Your task to perform on an android device: uninstall "Roku - Official Remote Control" Image 0: 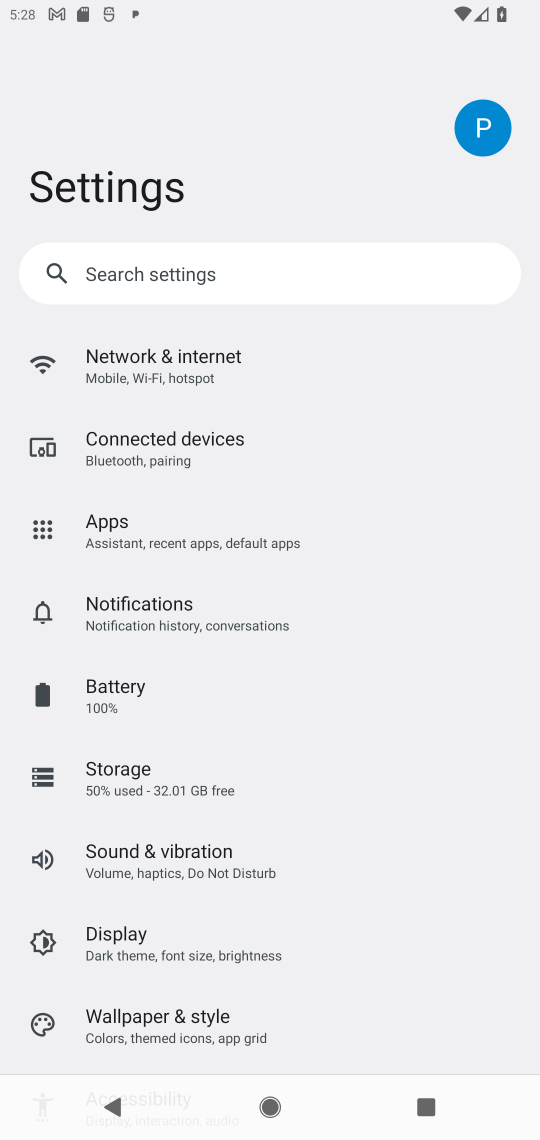
Step 0: press home button
Your task to perform on an android device: uninstall "Roku - Official Remote Control" Image 1: 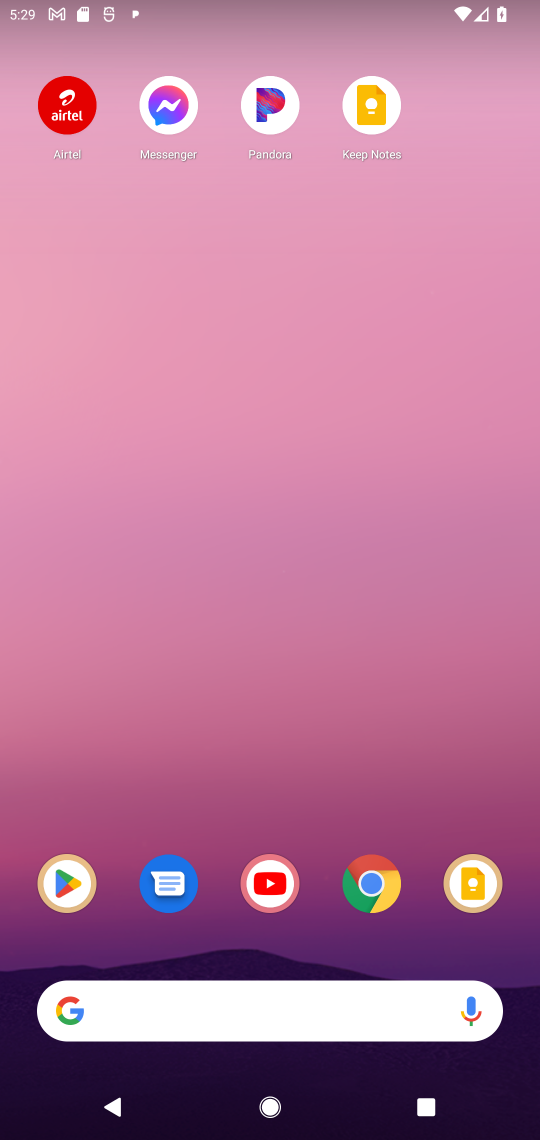
Step 1: click (60, 882)
Your task to perform on an android device: uninstall "Roku - Official Remote Control" Image 2: 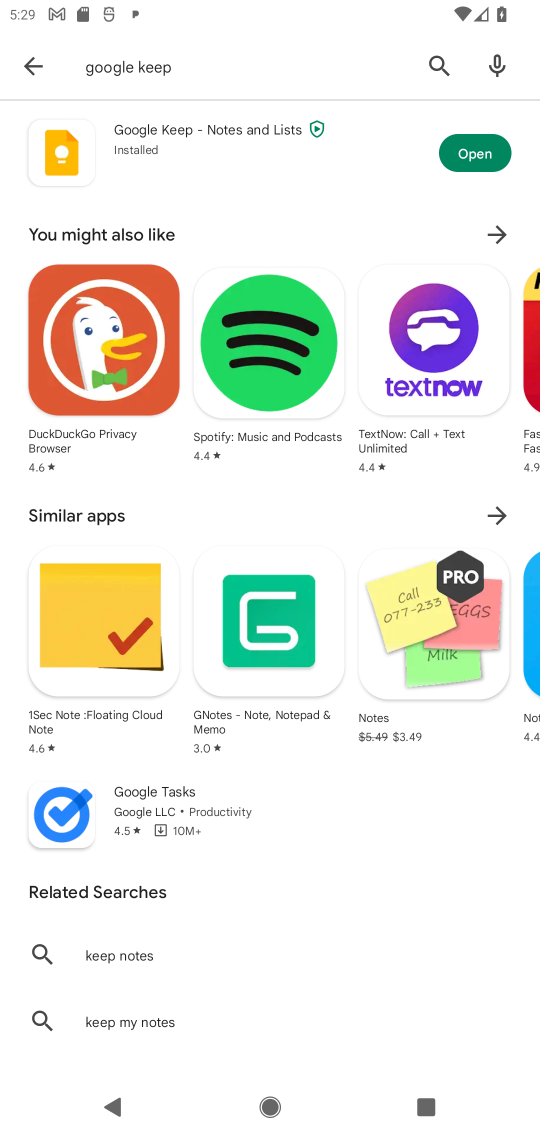
Step 2: click (20, 70)
Your task to perform on an android device: uninstall "Roku - Official Remote Control" Image 3: 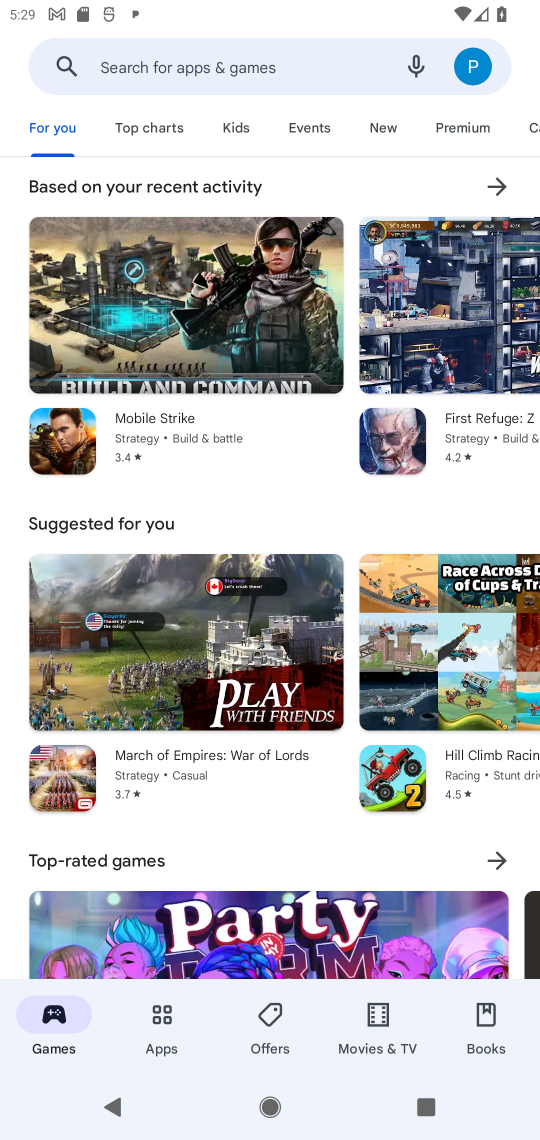
Step 3: click (195, 70)
Your task to perform on an android device: uninstall "Roku - Official Remote Control" Image 4: 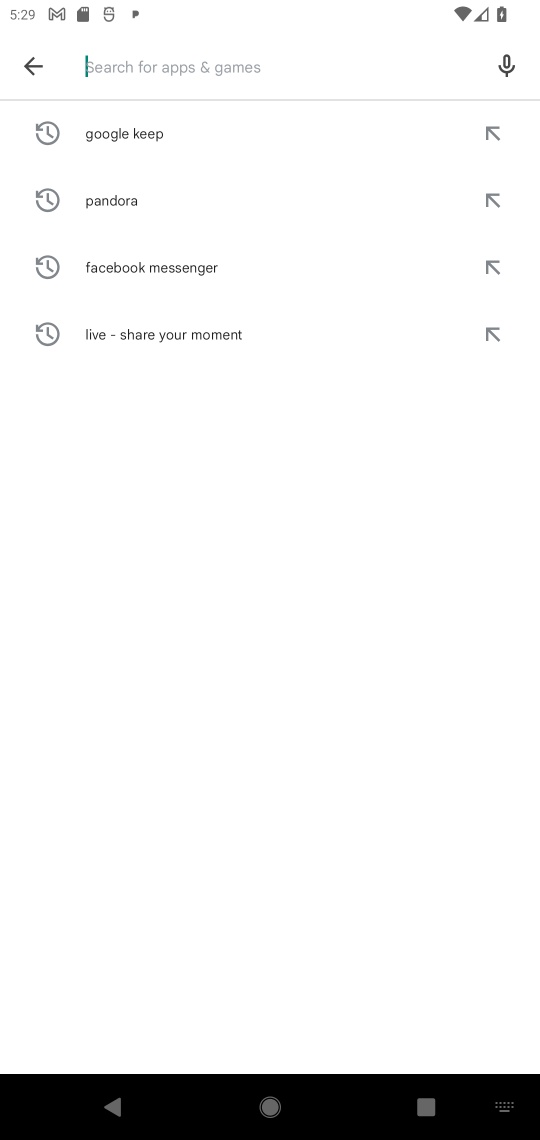
Step 4: type "Roku"
Your task to perform on an android device: uninstall "Roku - Official Remote Control" Image 5: 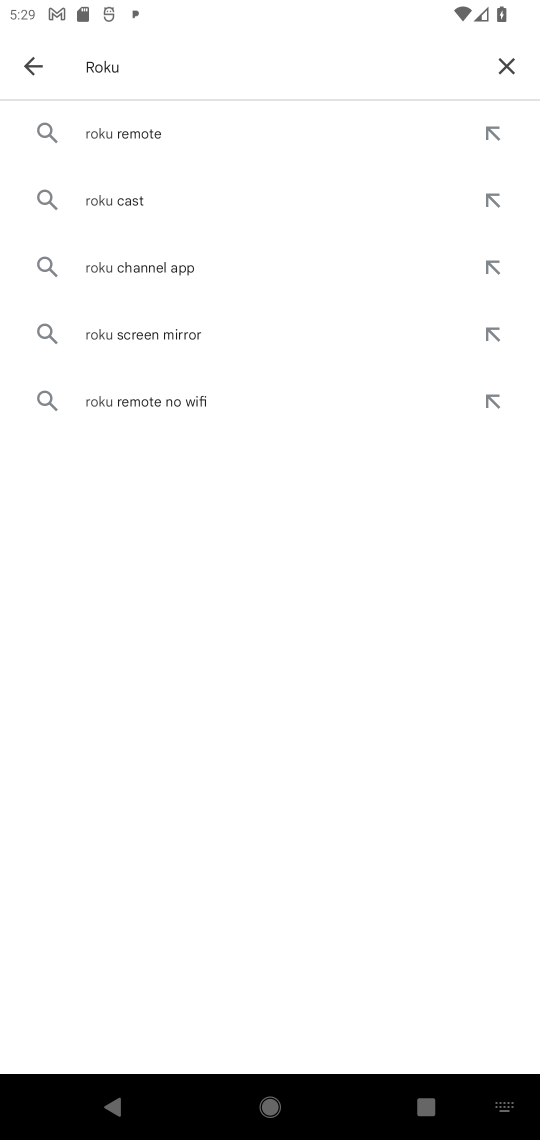
Step 5: click (140, 130)
Your task to perform on an android device: uninstall "Roku - Official Remote Control" Image 6: 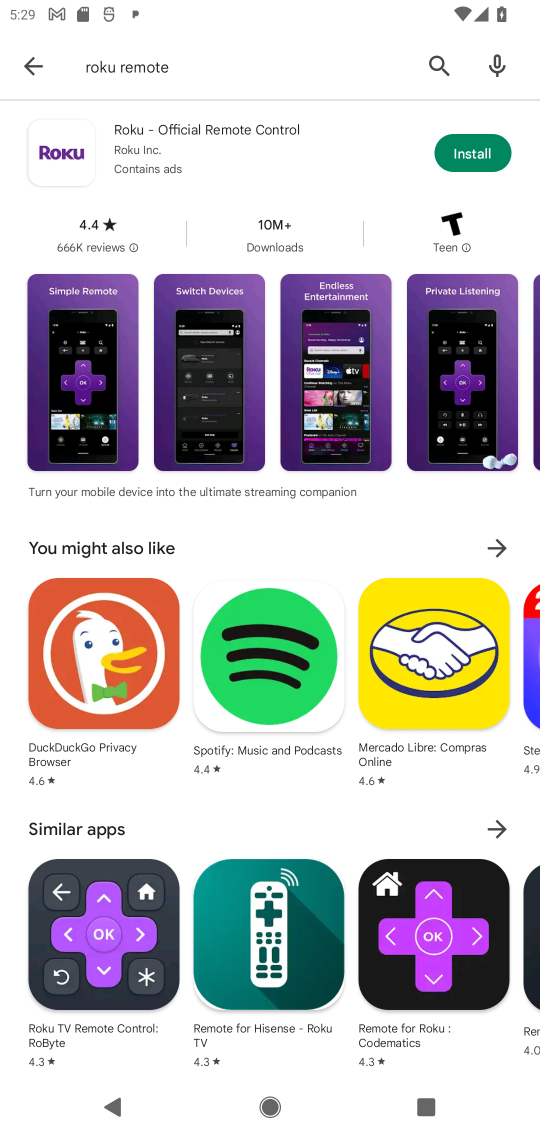
Step 6: task complete